Your task to perform on an android device: Go to Google Image 0: 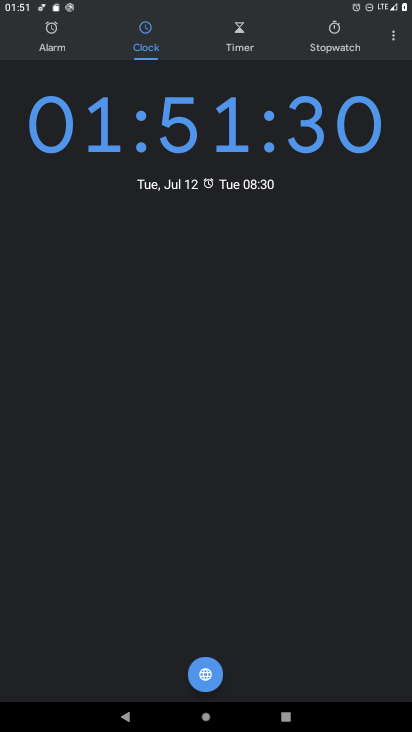
Step 0: press home button
Your task to perform on an android device: Go to Google Image 1: 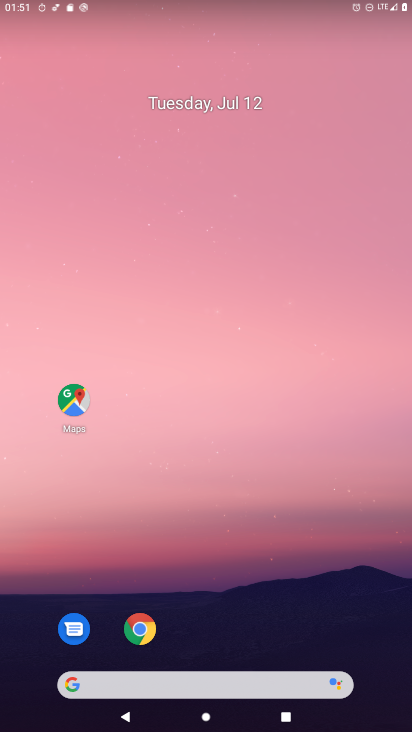
Step 1: click (128, 684)
Your task to perform on an android device: Go to Google Image 2: 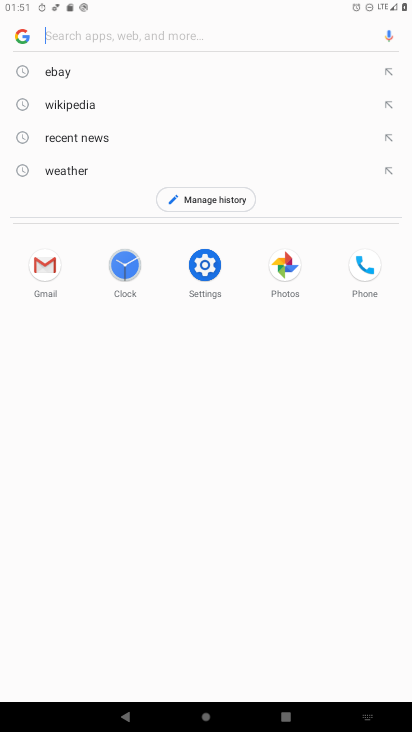
Step 2: task complete